Your task to perform on an android device: open the mobile data screen to see how much data has been used Image 0: 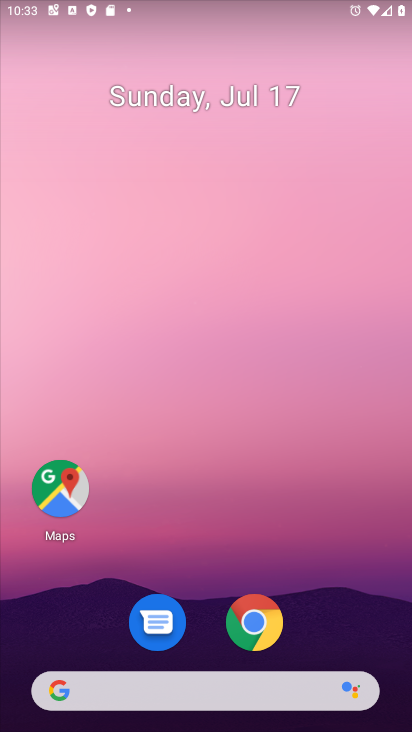
Step 0: drag from (252, 729) to (248, 0)
Your task to perform on an android device: open the mobile data screen to see how much data has been used Image 1: 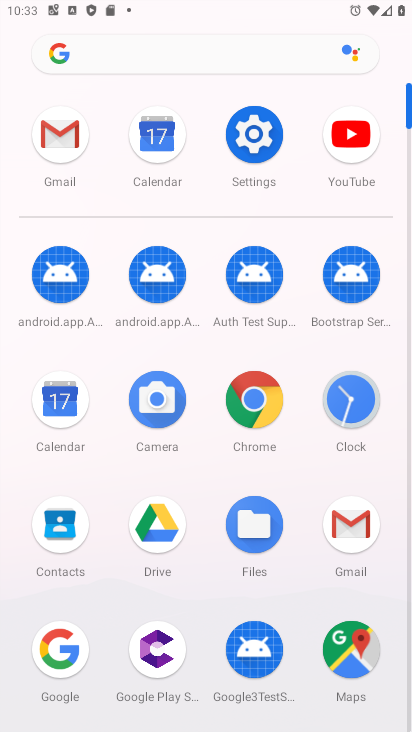
Step 1: click (253, 145)
Your task to perform on an android device: open the mobile data screen to see how much data has been used Image 2: 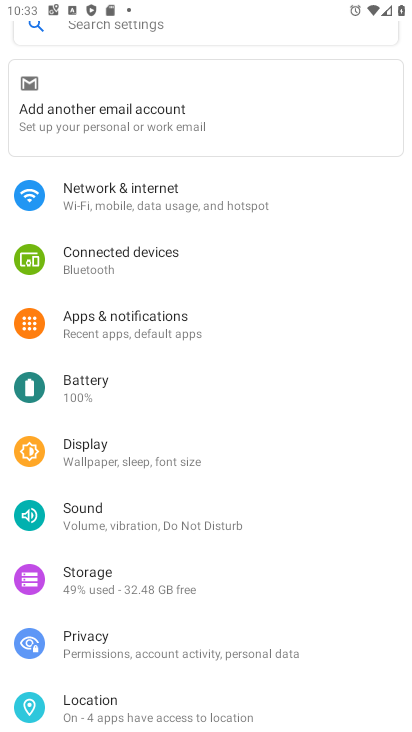
Step 2: click (220, 200)
Your task to perform on an android device: open the mobile data screen to see how much data has been used Image 3: 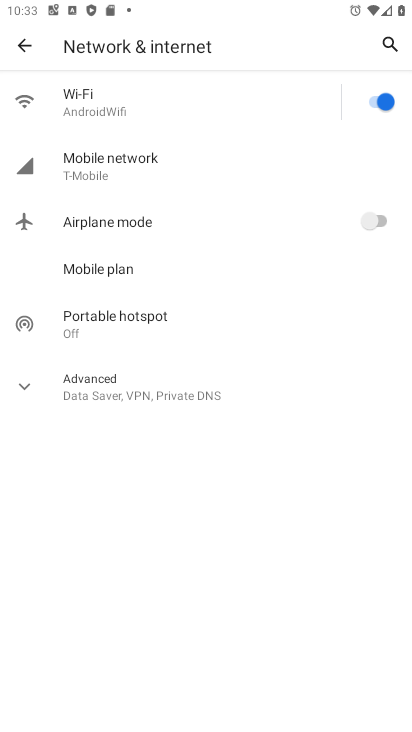
Step 3: click (168, 172)
Your task to perform on an android device: open the mobile data screen to see how much data has been used Image 4: 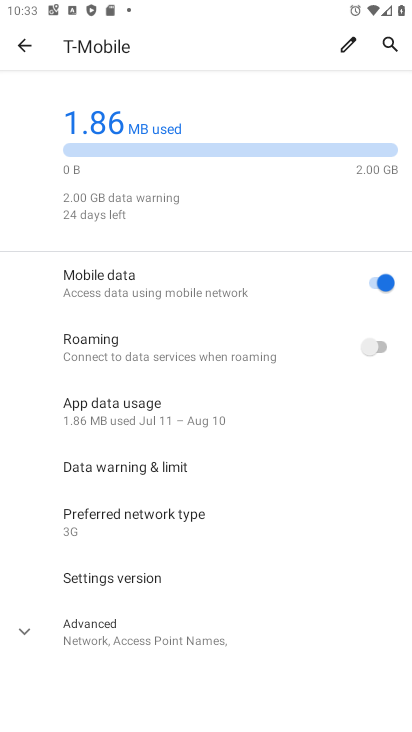
Step 4: task complete